Your task to perform on an android device: see sites visited before in the chrome app Image 0: 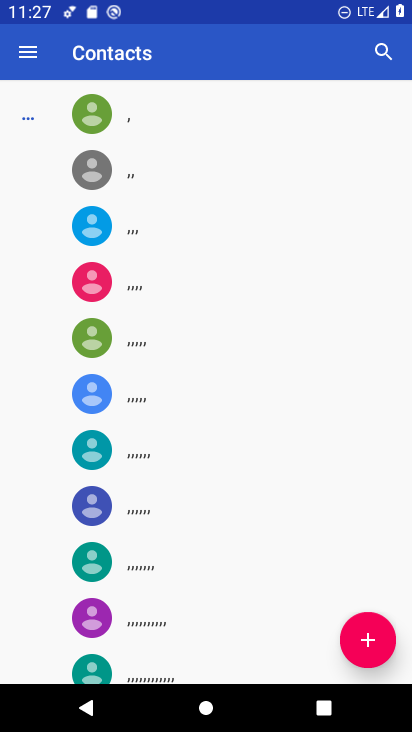
Step 0: press home button
Your task to perform on an android device: see sites visited before in the chrome app Image 1: 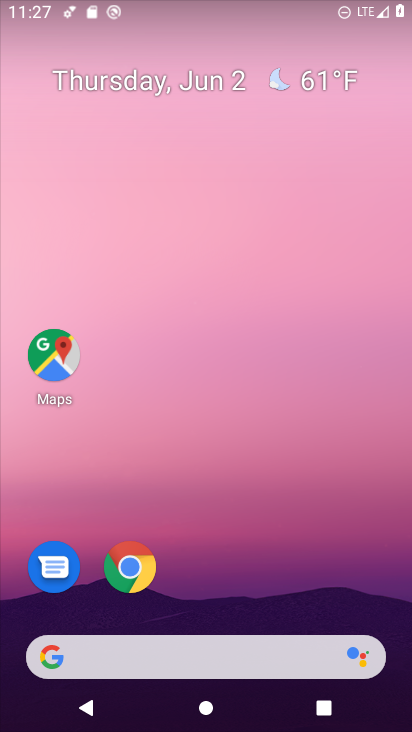
Step 1: click (129, 563)
Your task to perform on an android device: see sites visited before in the chrome app Image 2: 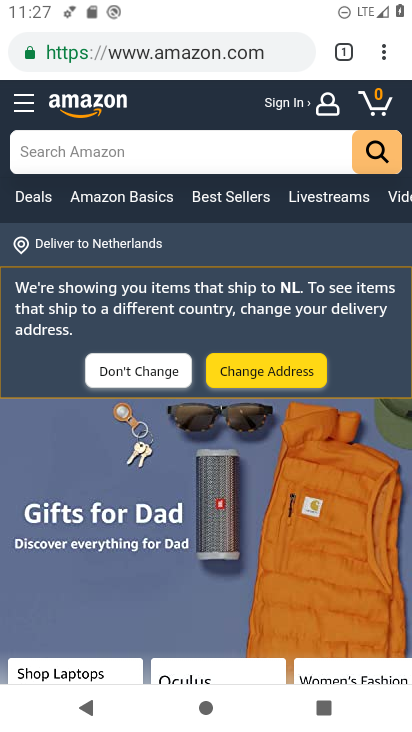
Step 2: task complete